Your task to perform on an android device: turn pop-ups on in chrome Image 0: 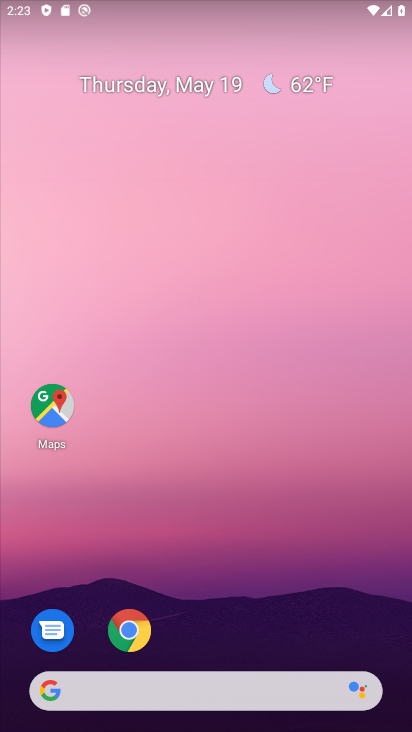
Step 0: drag from (370, 620) to (302, 113)
Your task to perform on an android device: turn pop-ups on in chrome Image 1: 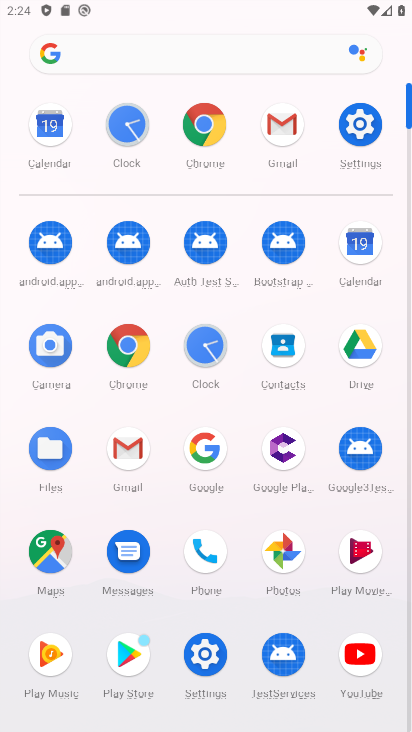
Step 1: click (136, 348)
Your task to perform on an android device: turn pop-ups on in chrome Image 2: 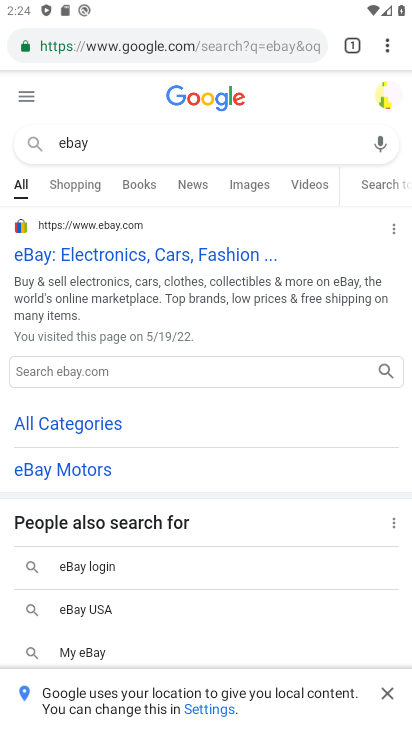
Step 2: drag from (389, 48) to (217, 558)
Your task to perform on an android device: turn pop-ups on in chrome Image 3: 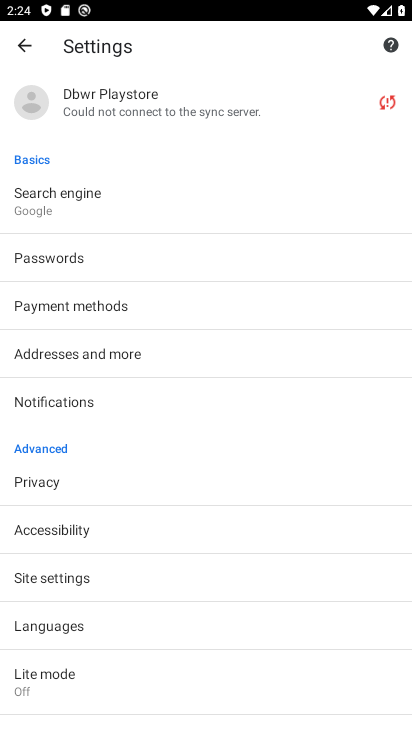
Step 3: click (132, 579)
Your task to perform on an android device: turn pop-ups on in chrome Image 4: 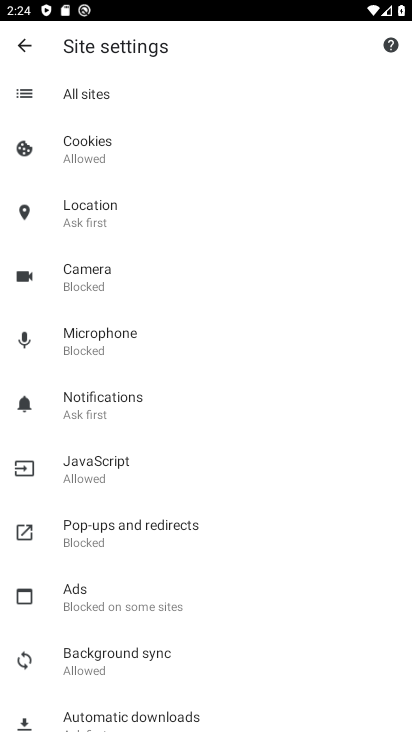
Step 4: click (144, 523)
Your task to perform on an android device: turn pop-ups on in chrome Image 5: 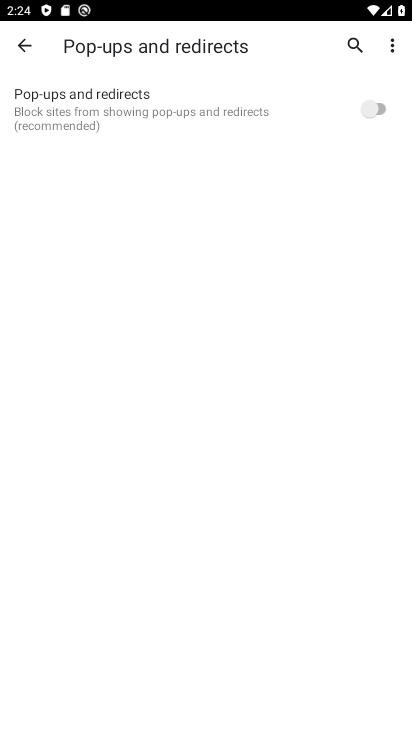
Step 5: click (387, 105)
Your task to perform on an android device: turn pop-ups on in chrome Image 6: 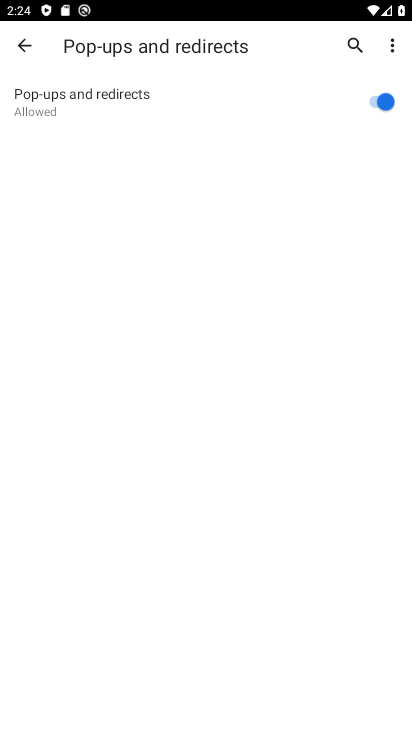
Step 6: task complete